Your task to perform on an android device: Open privacy settings Image 0: 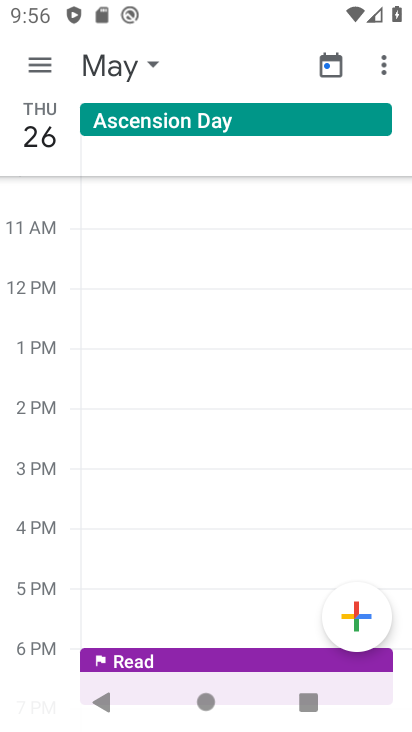
Step 0: press home button
Your task to perform on an android device: Open privacy settings Image 1: 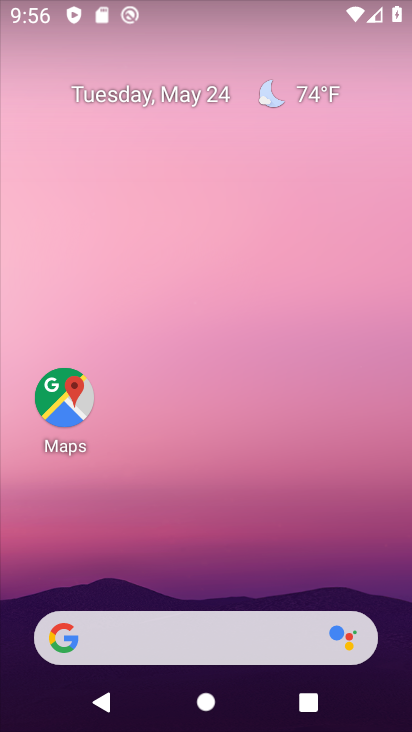
Step 1: drag from (218, 601) to (173, 60)
Your task to perform on an android device: Open privacy settings Image 2: 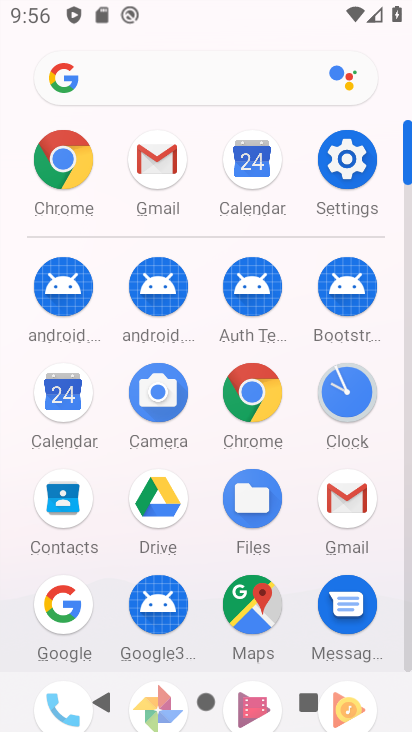
Step 2: click (335, 176)
Your task to perform on an android device: Open privacy settings Image 3: 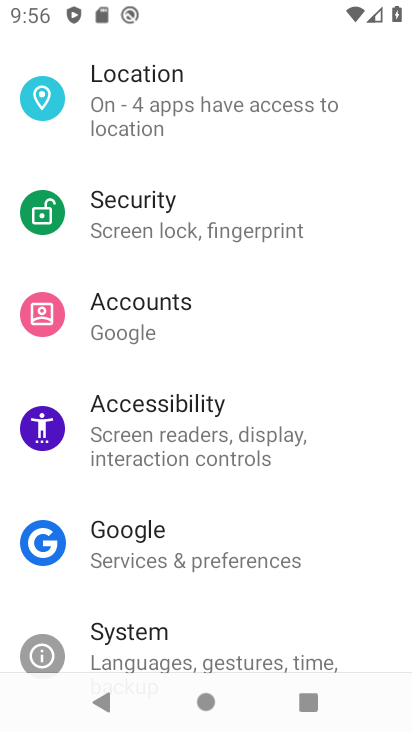
Step 3: drag from (335, 176) to (291, 583)
Your task to perform on an android device: Open privacy settings Image 4: 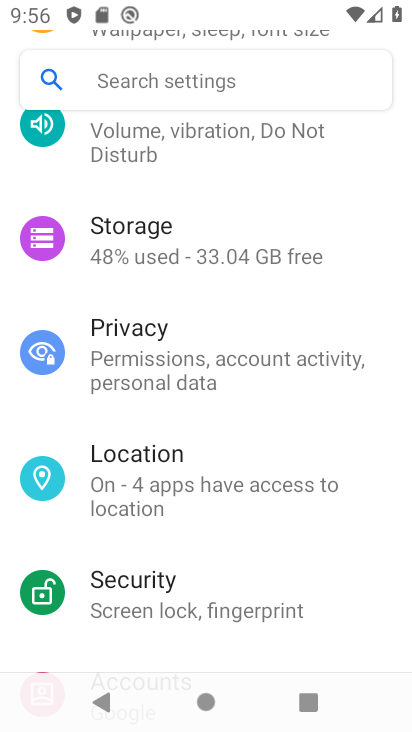
Step 4: click (152, 376)
Your task to perform on an android device: Open privacy settings Image 5: 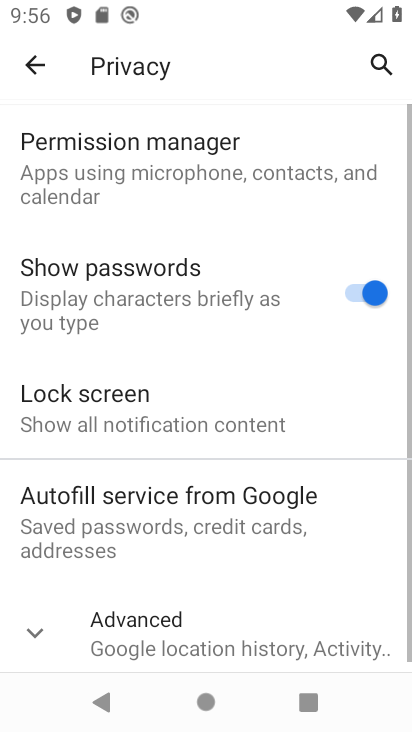
Step 5: task complete